Your task to perform on an android device: open chrome privacy settings Image 0: 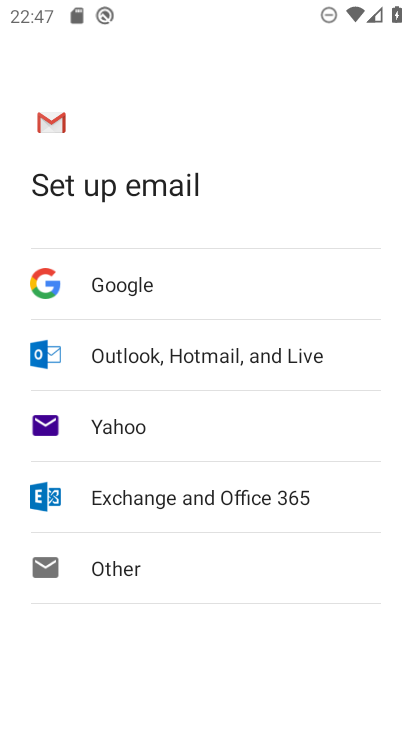
Step 0: press home button
Your task to perform on an android device: open chrome privacy settings Image 1: 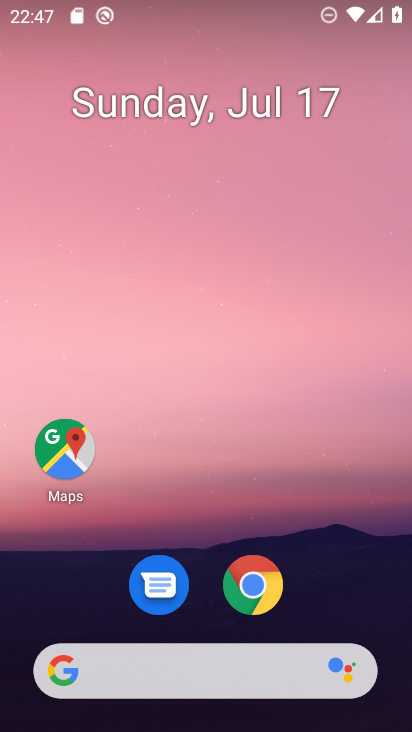
Step 1: click (262, 601)
Your task to perform on an android device: open chrome privacy settings Image 2: 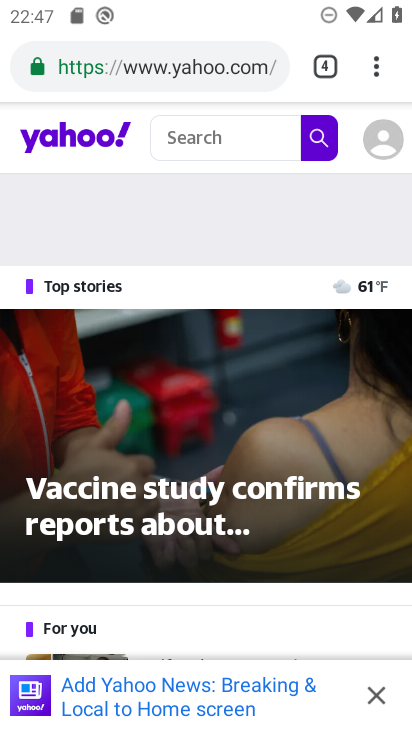
Step 2: drag from (376, 70) to (230, 587)
Your task to perform on an android device: open chrome privacy settings Image 3: 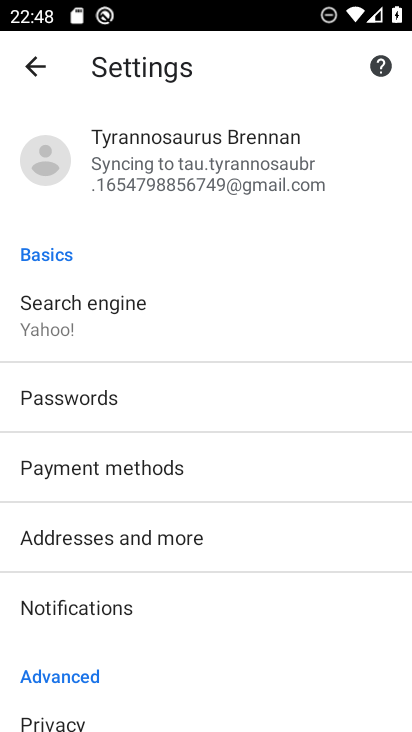
Step 3: drag from (197, 630) to (262, 392)
Your task to perform on an android device: open chrome privacy settings Image 4: 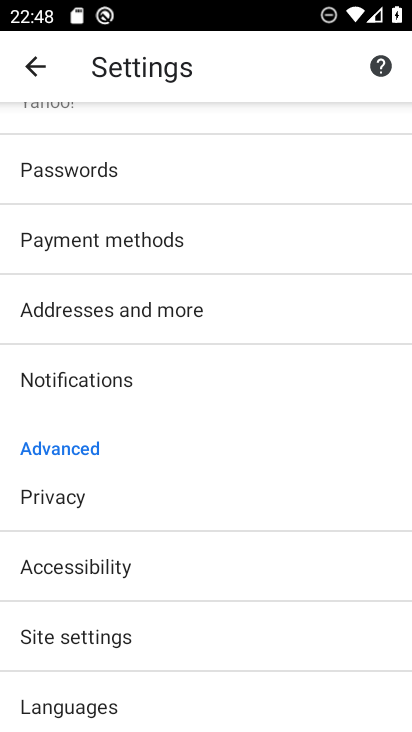
Step 4: click (73, 495)
Your task to perform on an android device: open chrome privacy settings Image 5: 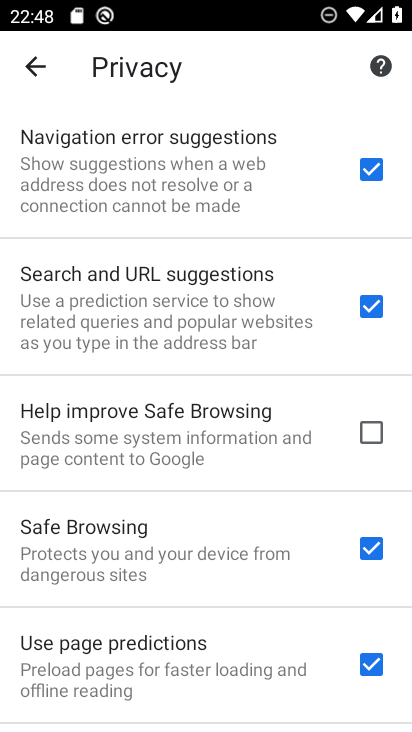
Step 5: task complete